Your task to perform on an android device: Open internet settings Image 0: 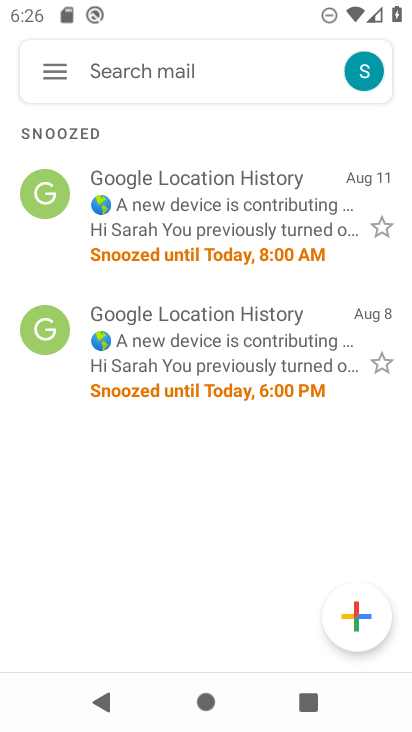
Step 0: press home button
Your task to perform on an android device: Open internet settings Image 1: 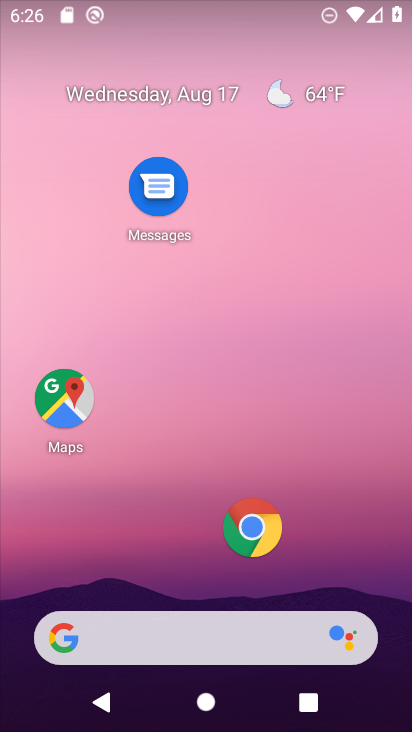
Step 1: drag from (190, 605) to (188, 197)
Your task to perform on an android device: Open internet settings Image 2: 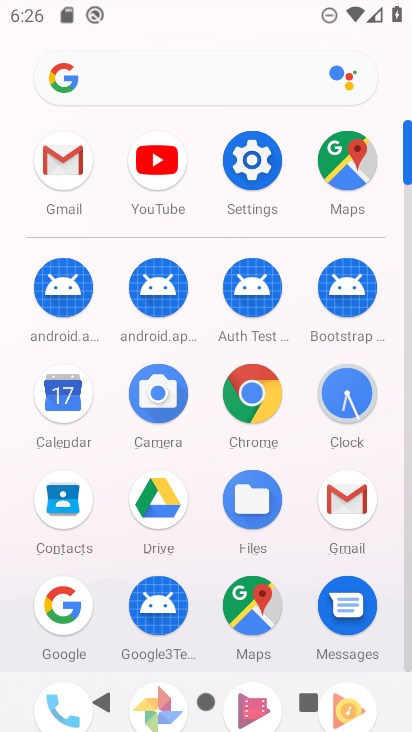
Step 2: click (248, 163)
Your task to perform on an android device: Open internet settings Image 3: 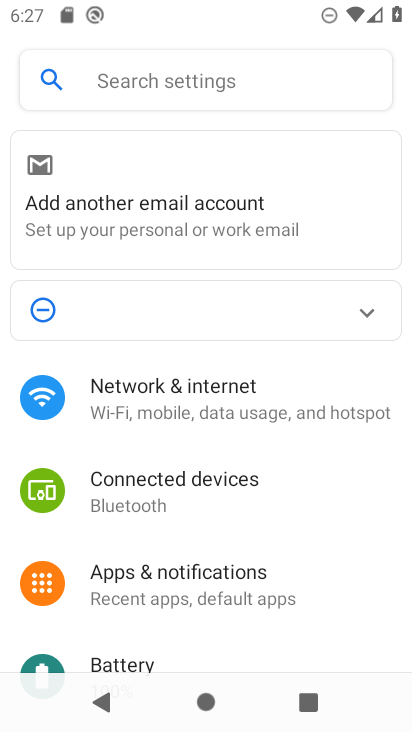
Step 3: click (233, 409)
Your task to perform on an android device: Open internet settings Image 4: 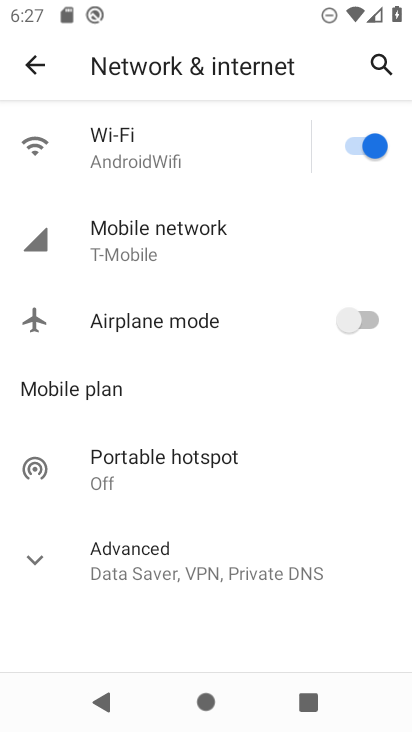
Step 4: click (139, 260)
Your task to perform on an android device: Open internet settings Image 5: 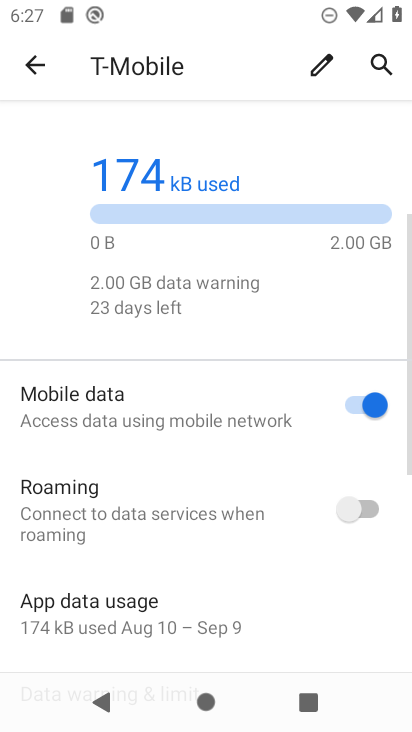
Step 5: task complete